Your task to perform on an android device: Open location settings Image 0: 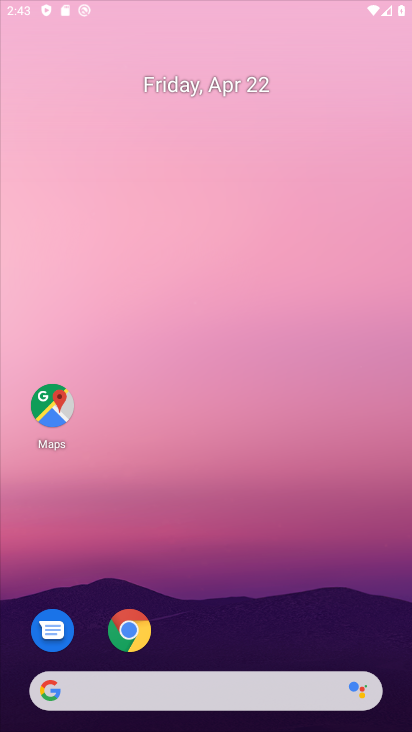
Step 0: click (388, 319)
Your task to perform on an android device: Open location settings Image 1: 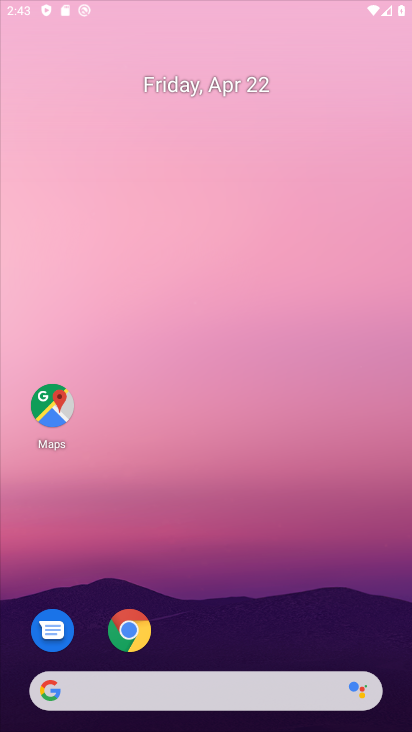
Step 1: press home button
Your task to perform on an android device: Open location settings Image 2: 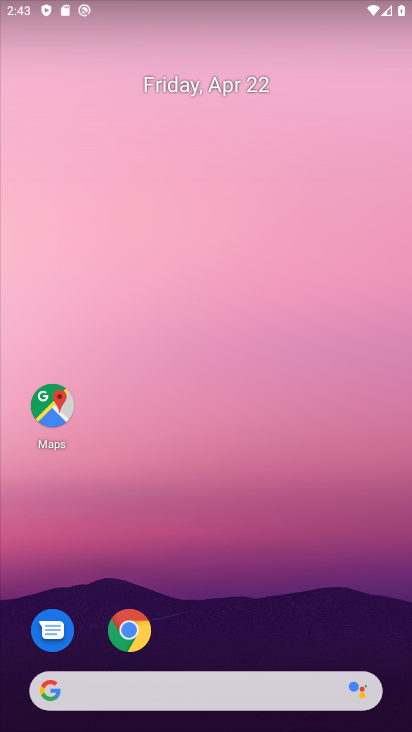
Step 2: drag from (229, 690) to (231, 70)
Your task to perform on an android device: Open location settings Image 3: 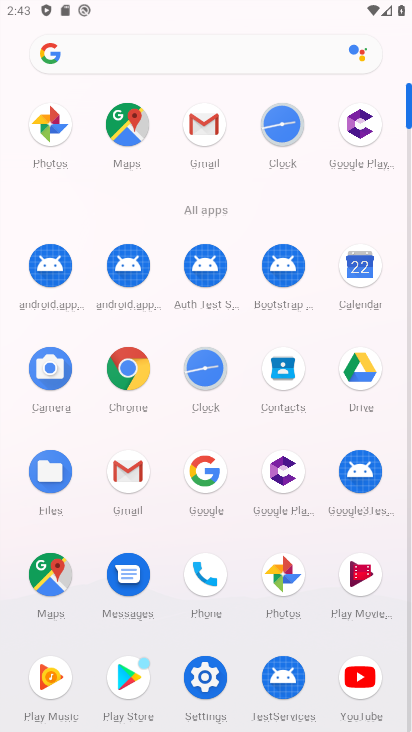
Step 3: drag from (278, 557) to (350, 95)
Your task to perform on an android device: Open location settings Image 4: 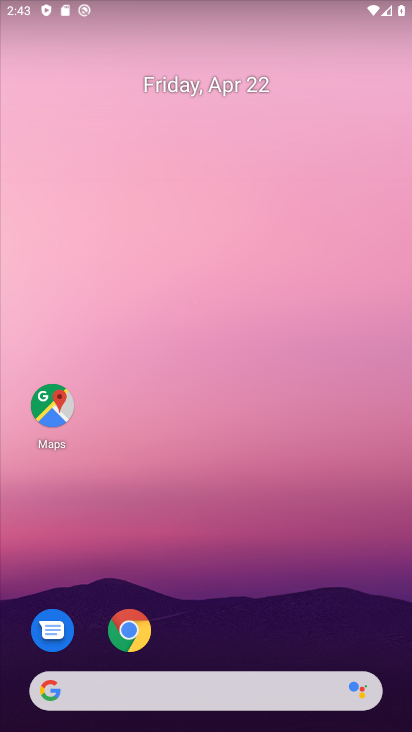
Step 4: drag from (260, 614) to (226, 73)
Your task to perform on an android device: Open location settings Image 5: 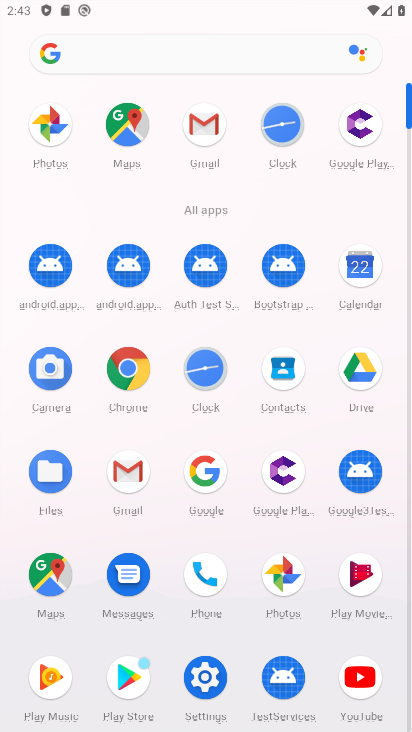
Step 5: click (54, 578)
Your task to perform on an android device: Open location settings Image 6: 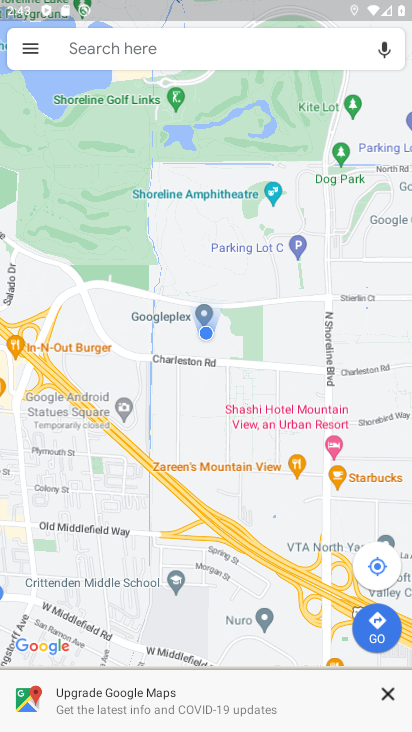
Step 6: task complete